Your task to perform on an android device: Go to Android settings Image 0: 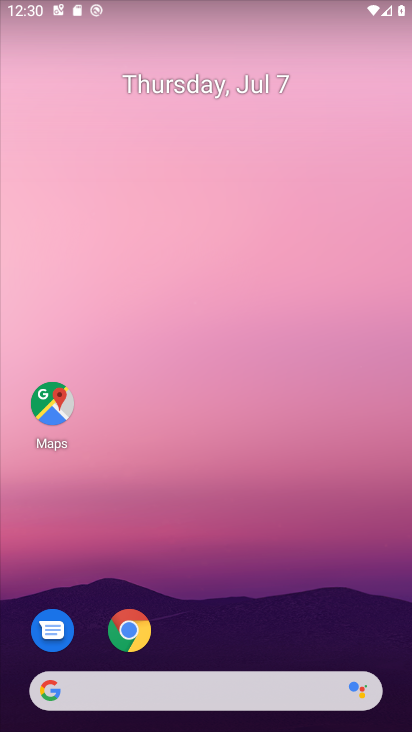
Step 0: drag from (227, 620) to (225, 236)
Your task to perform on an android device: Go to Android settings Image 1: 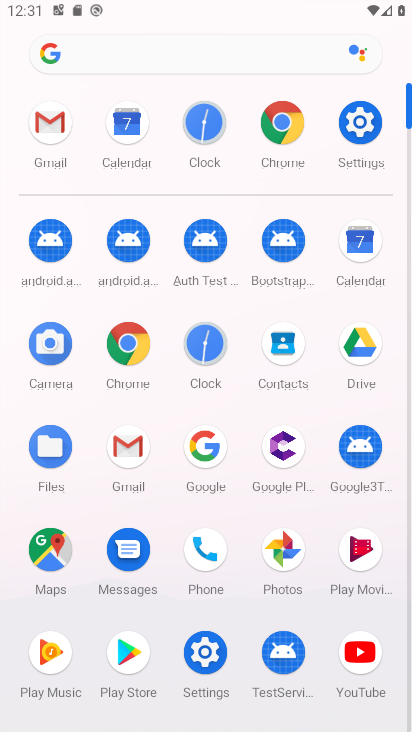
Step 1: click (375, 118)
Your task to perform on an android device: Go to Android settings Image 2: 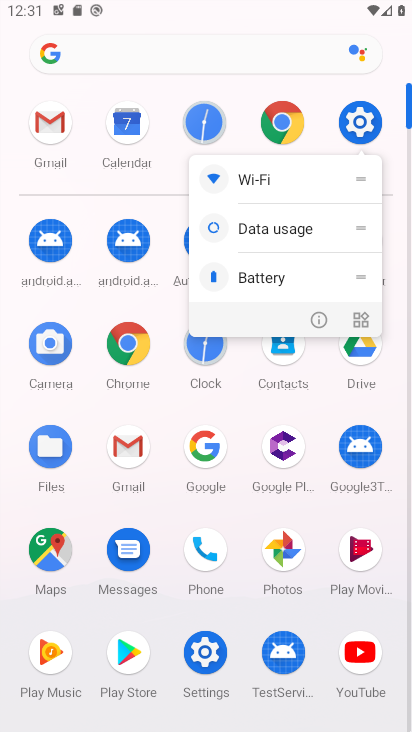
Step 2: click (365, 118)
Your task to perform on an android device: Go to Android settings Image 3: 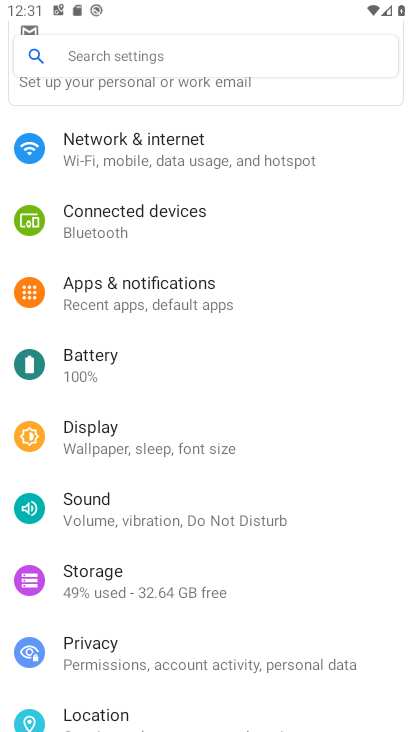
Step 3: task complete